Your task to perform on an android device: Do I have any events this weekend? Image 0: 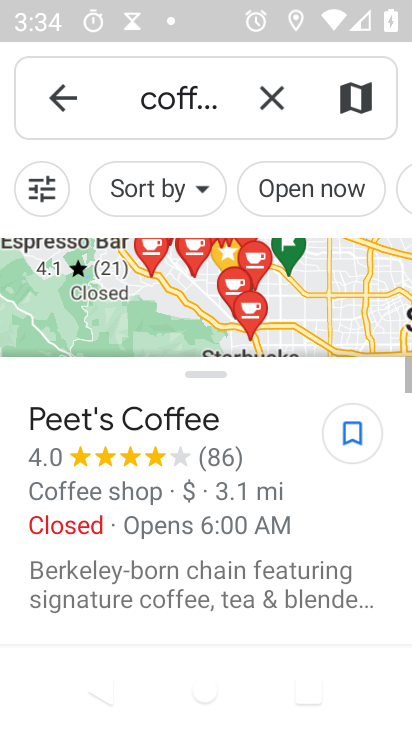
Step 0: press home button
Your task to perform on an android device: Do I have any events this weekend? Image 1: 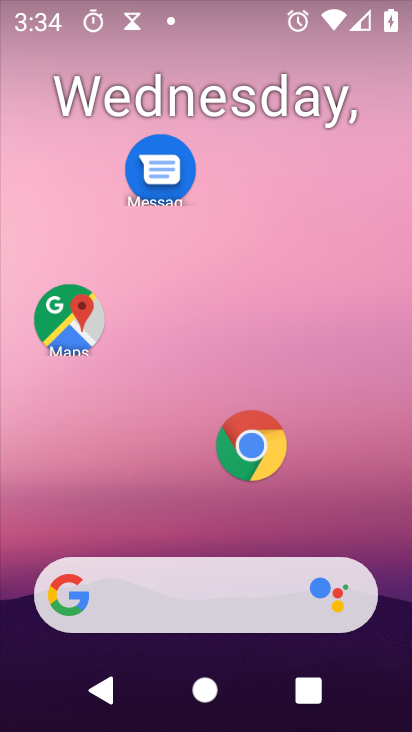
Step 1: drag from (16, 509) to (300, 155)
Your task to perform on an android device: Do I have any events this weekend? Image 2: 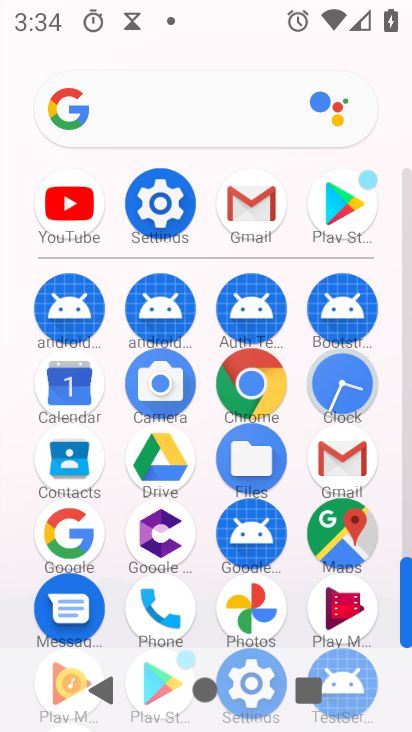
Step 2: click (66, 378)
Your task to perform on an android device: Do I have any events this weekend? Image 3: 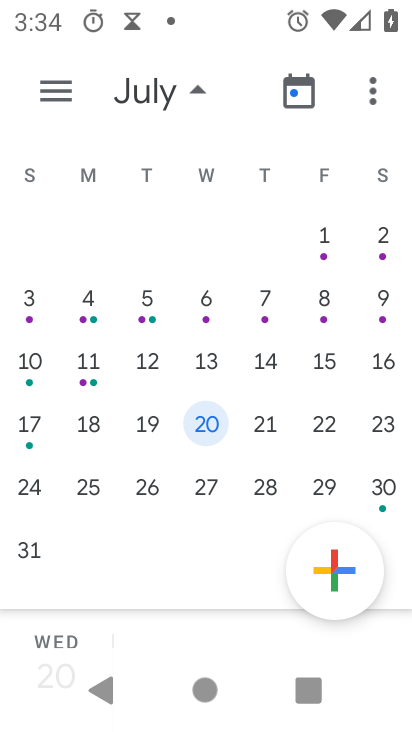
Step 3: drag from (41, 380) to (409, 308)
Your task to perform on an android device: Do I have any events this weekend? Image 4: 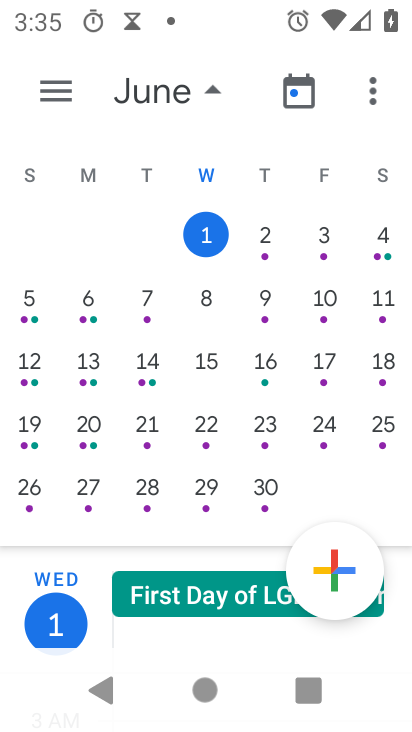
Step 4: click (375, 260)
Your task to perform on an android device: Do I have any events this weekend? Image 5: 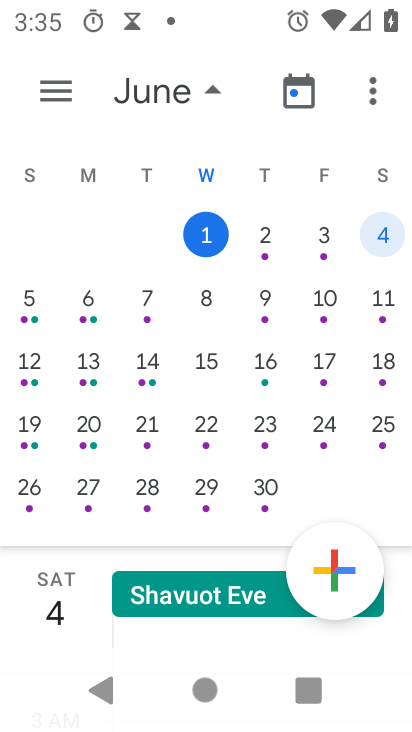
Step 5: click (17, 314)
Your task to perform on an android device: Do I have any events this weekend? Image 6: 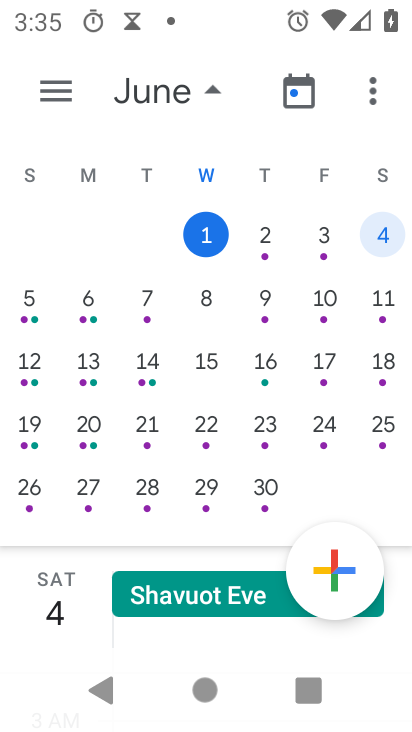
Step 6: click (30, 304)
Your task to perform on an android device: Do I have any events this weekend? Image 7: 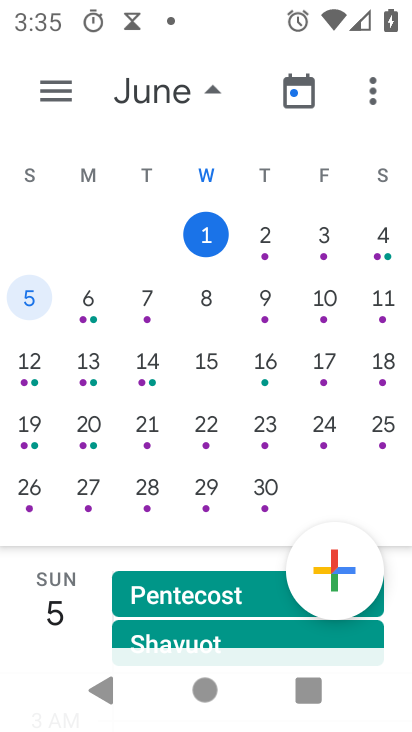
Step 7: task complete